Your task to perform on an android device: Go to Reddit.com Image 0: 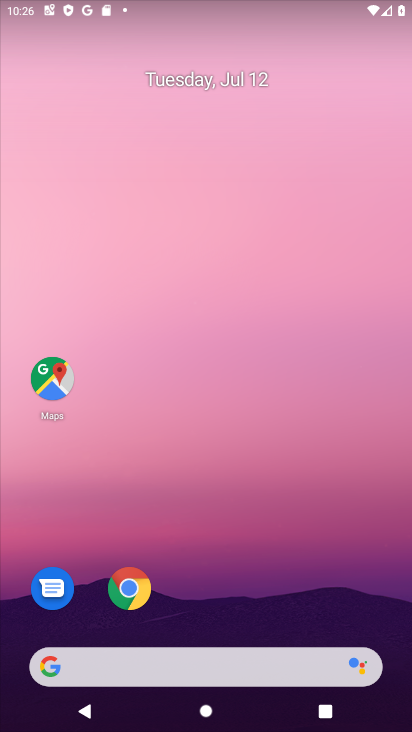
Step 0: drag from (243, 529) to (270, 70)
Your task to perform on an android device: Go to Reddit.com Image 1: 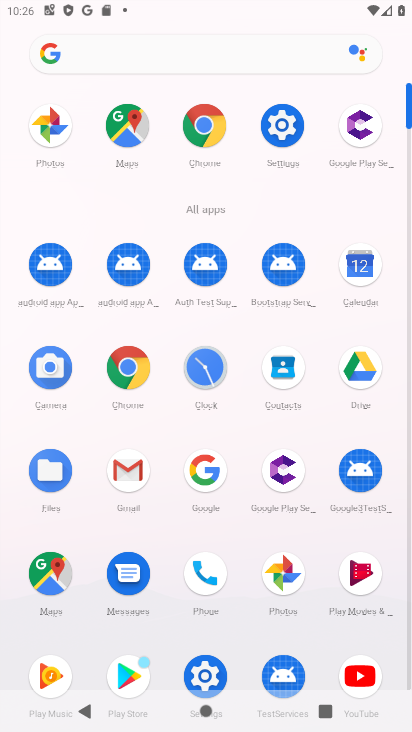
Step 1: click (129, 361)
Your task to perform on an android device: Go to Reddit.com Image 2: 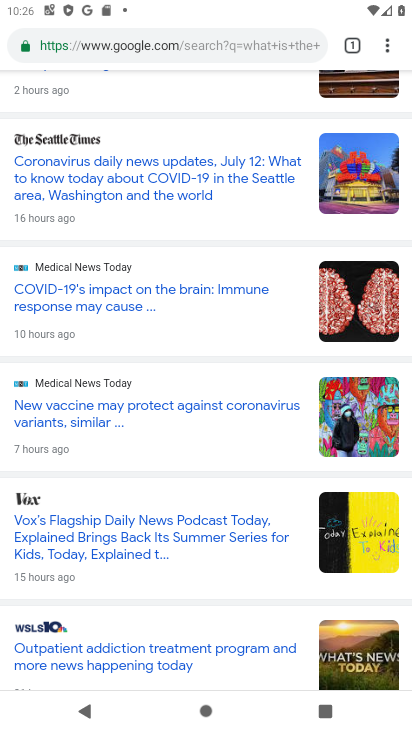
Step 2: click (65, 45)
Your task to perform on an android device: Go to Reddit.com Image 3: 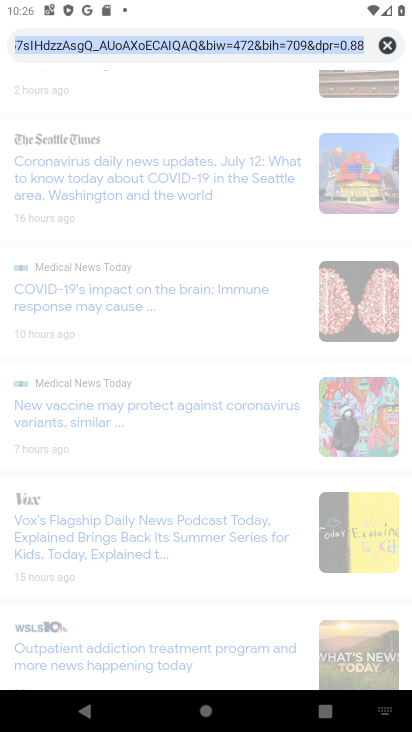
Step 3: click (394, 45)
Your task to perform on an android device: Go to Reddit.com Image 4: 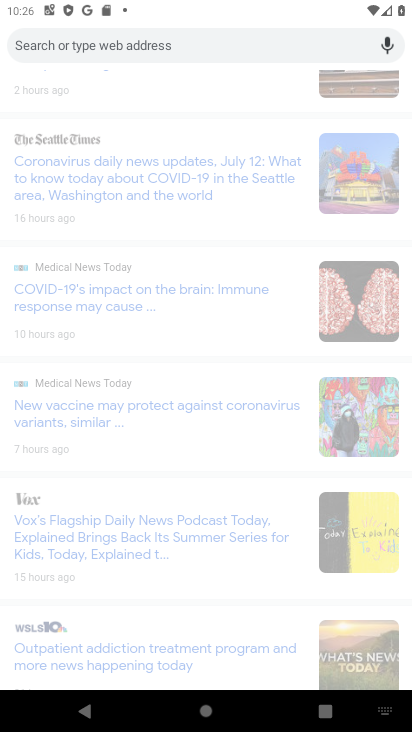
Step 4: type "Reddit.com"
Your task to perform on an android device: Go to Reddit.com Image 5: 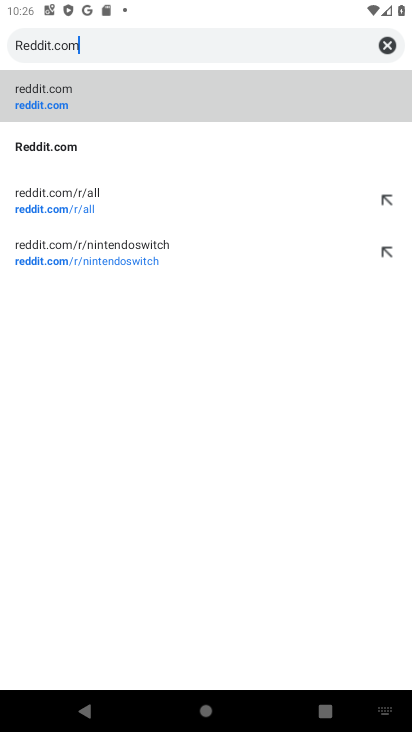
Step 5: click (15, 102)
Your task to perform on an android device: Go to Reddit.com Image 6: 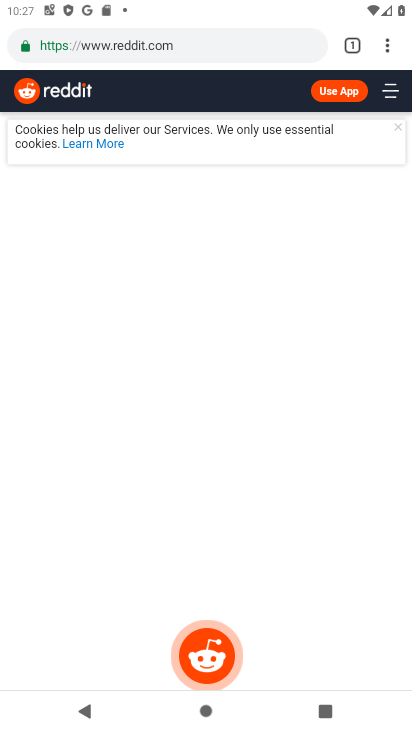
Step 6: task complete